Your task to perform on an android device: change the clock display to show seconds Image 0: 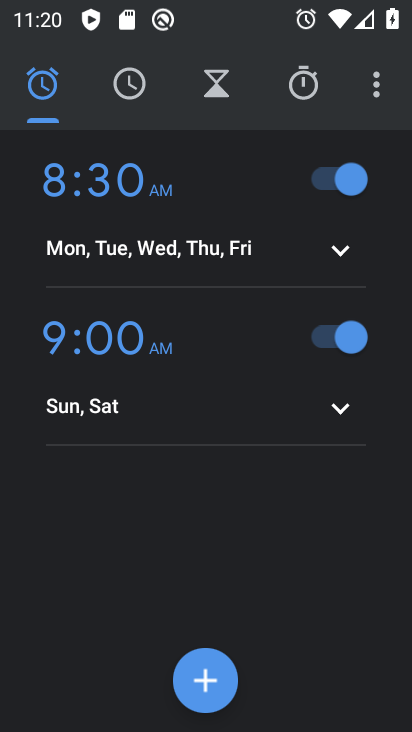
Step 0: press home button
Your task to perform on an android device: change the clock display to show seconds Image 1: 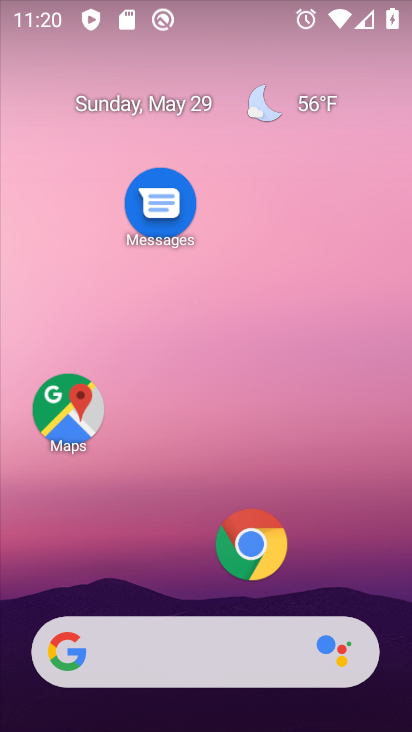
Step 1: drag from (191, 588) to (227, 35)
Your task to perform on an android device: change the clock display to show seconds Image 2: 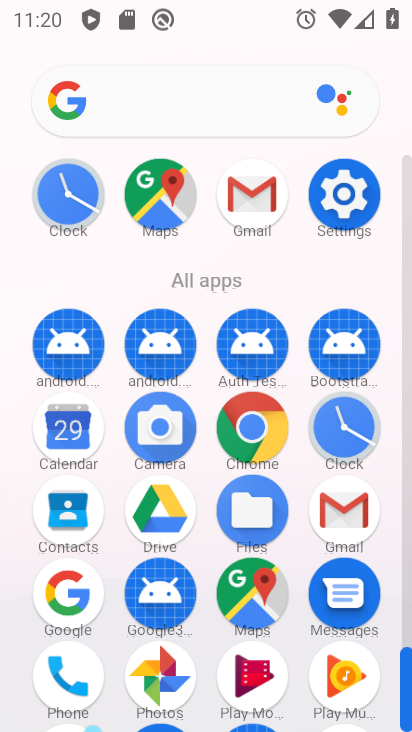
Step 2: click (340, 418)
Your task to perform on an android device: change the clock display to show seconds Image 3: 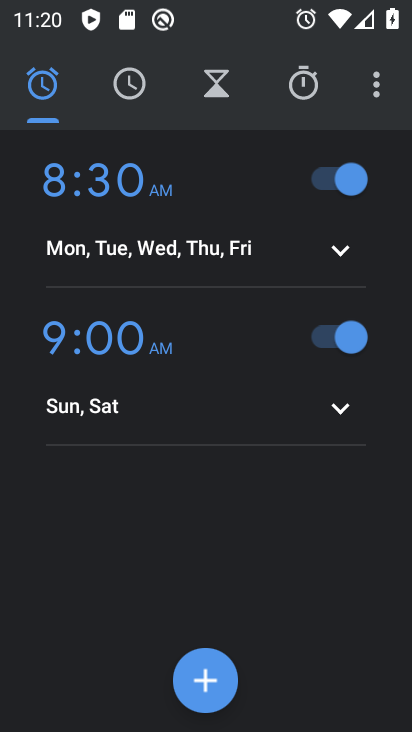
Step 3: click (379, 64)
Your task to perform on an android device: change the clock display to show seconds Image 4: 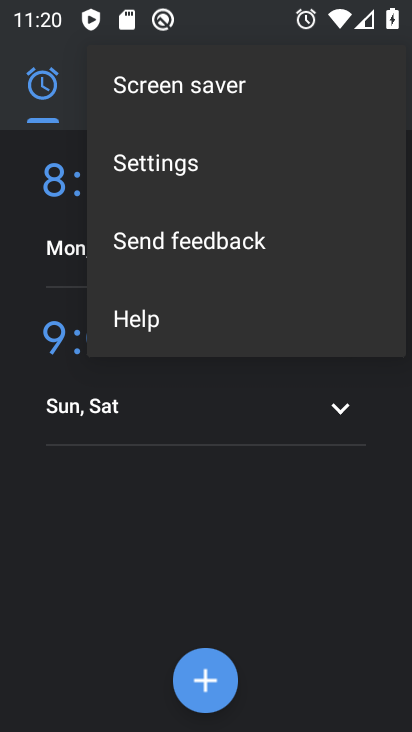
Step 4: click (224, 166)
Your task to perform on an android device: change the clock display to show seconds Image 5: 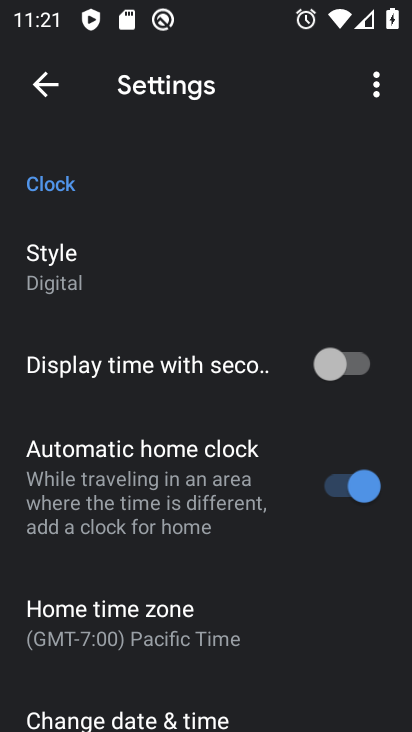
Step 5: click (348, 360)
Your task to perform on an android device: change the clock display to show seconds Image 6: 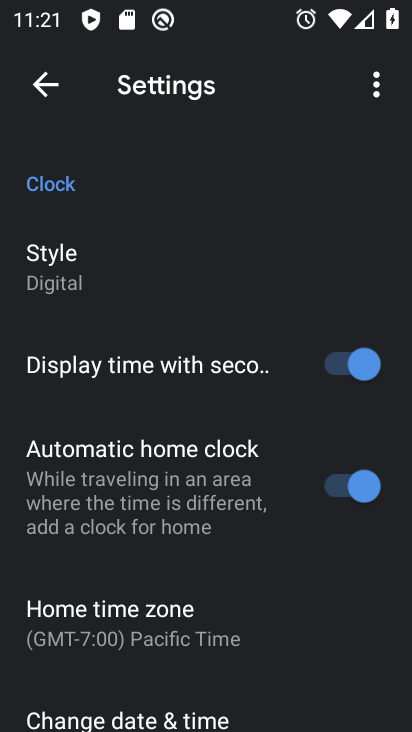
Step 6: task complete